Your task to perform on an android device: Open my contact list Image 0: 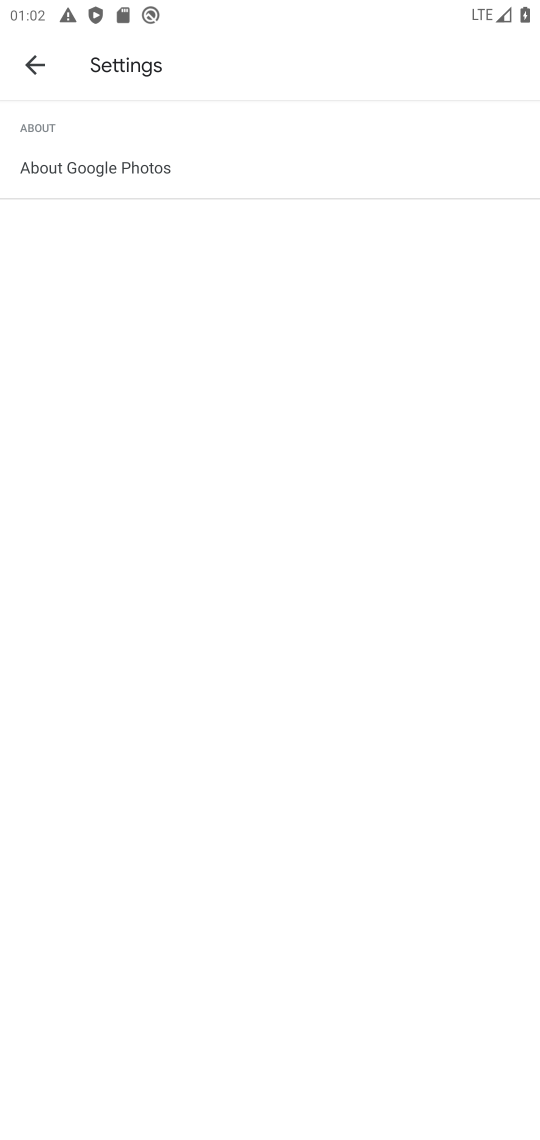
Step 0: press home button
Your task to perform on an android device: Open my contact list Image 1: 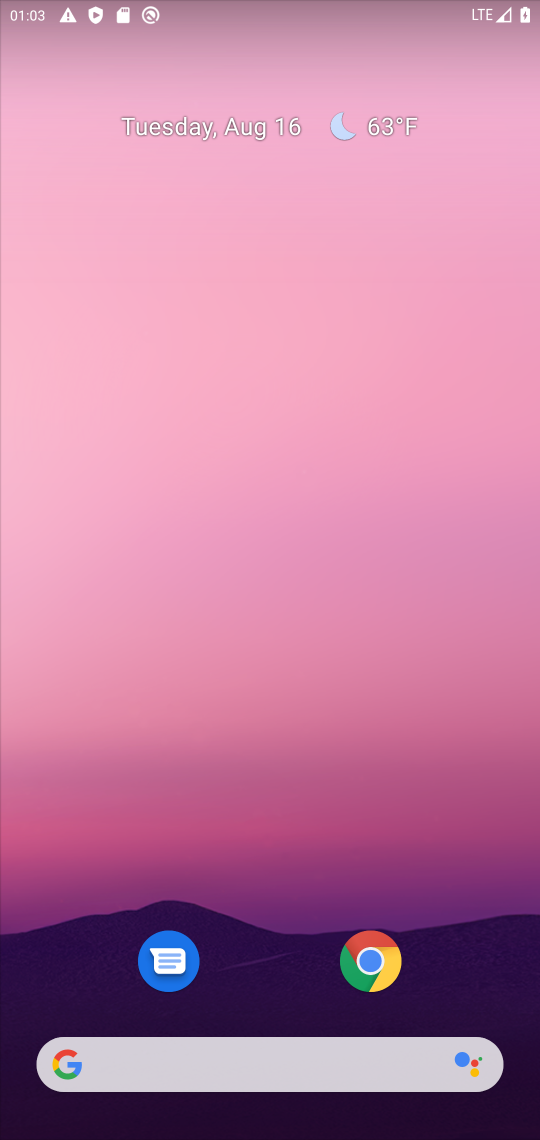
Step 1: drag from (236, 488) to (244, 9)
Your task to perform on an android device: Open my contact list Image 2: 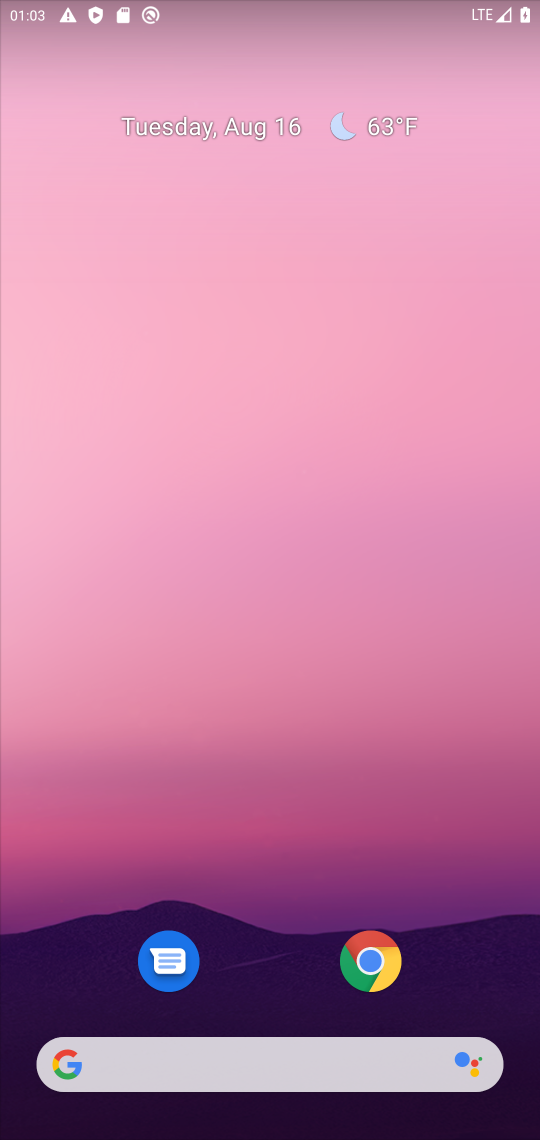
Step 2: drag from (267, 884) to (373, 26)
Your task to perform on an android device: Open my contact list Image 3: 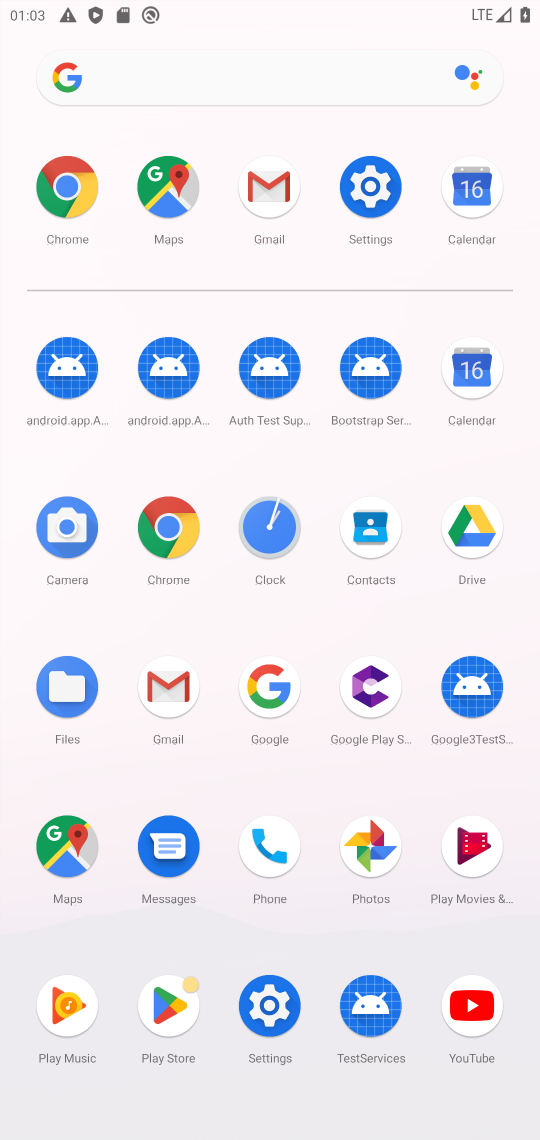
Step 3: click (361, 496)
Your task to perform on an android device: Open my contact list Image 4: 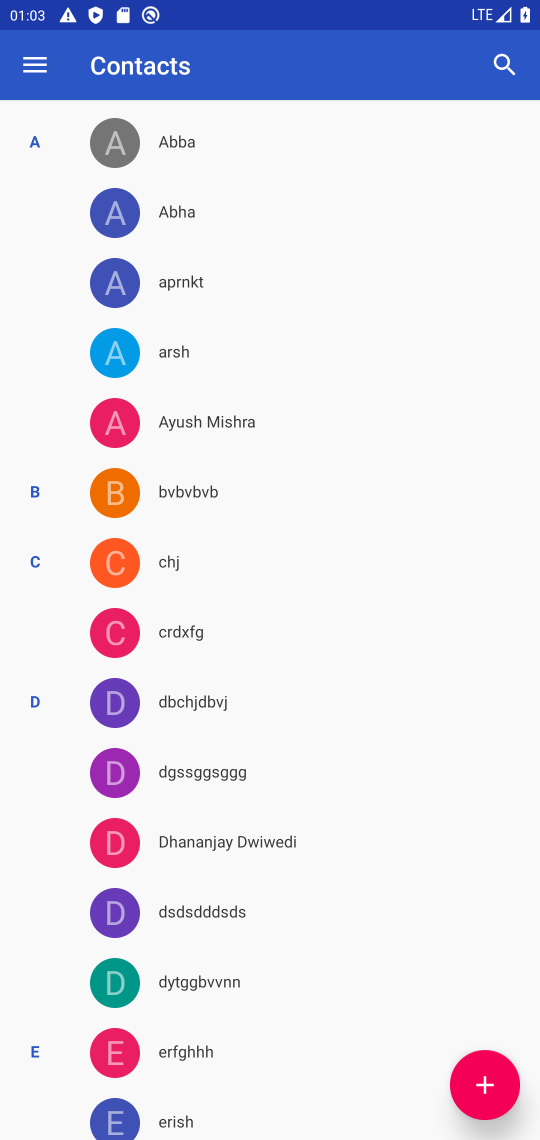
Step 4: task complete